Your task to perform on an android device: Search for Italian restaurants on Maps Image 0: 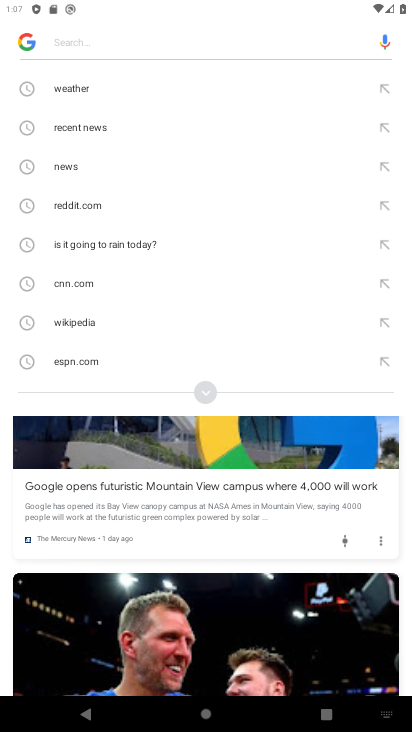
Step 0: press home button
Your task to perform on an android device: Search for Italian restaurants on Maps Image 1: 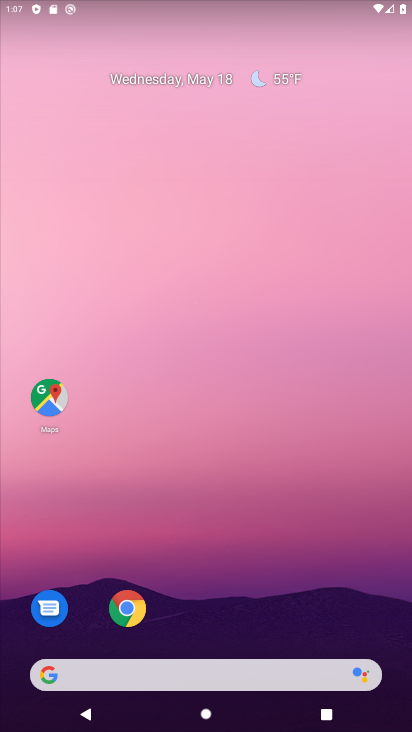
Step 1: click (46, 403)
Your task to perform on an android device: Search for Italian restaurants on Maps Image 2: 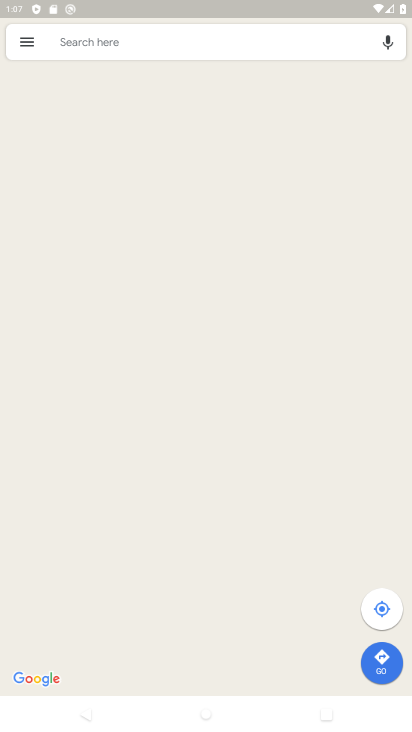
Step 2: click (235, 48)
Your task to perform on an android device: Search for Italian restaurants on Maps Image 3: 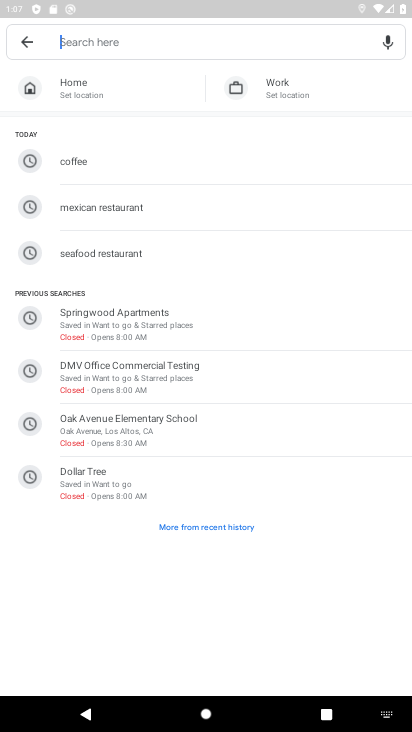
Step 3: type "Italian restaurants"
Your task to perform on an android device: Search for Italian restaurants on Maps Image 4: 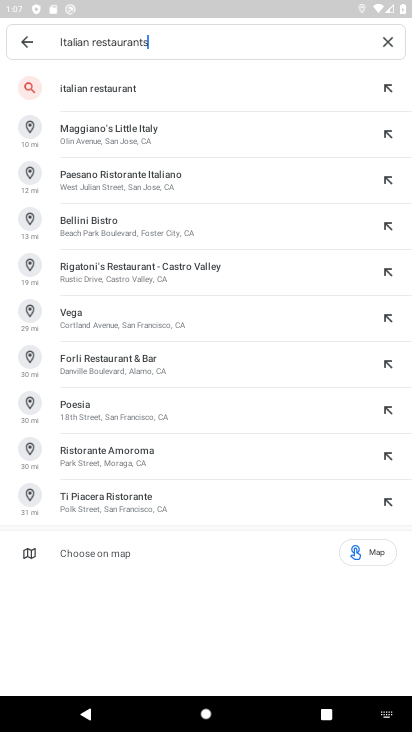
Step 4: press enter
Your task to perform on an android device: Search for Italian restaurants on Maps Image 5: 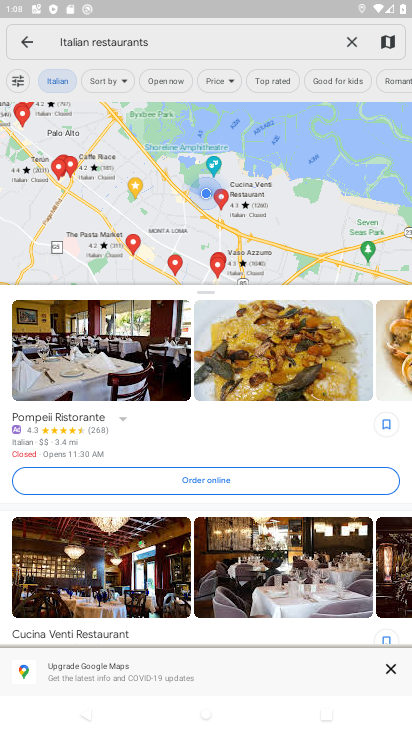
Step 5: task complete